Your task to perform on an android device: Open Youtube and go to "Your channel" Image 0: 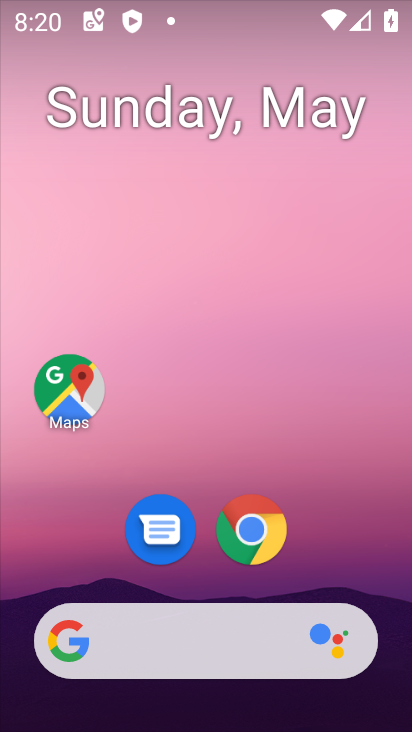
Step 0: drag from (366, 589) to (412, 660)
Your task to perform on an android device: Open Youtube and go to "Your channel" Image 1: 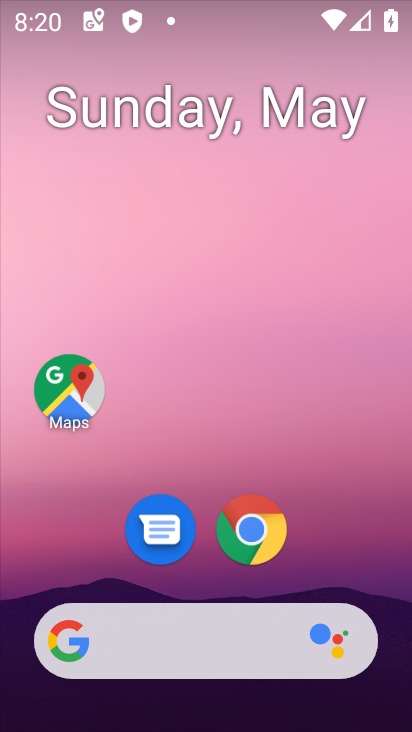
Step 1: drag from (405, 629) to (388, 35)
Your task to perform on an android device: Open Youtube and go to "Your channel" Image 2: 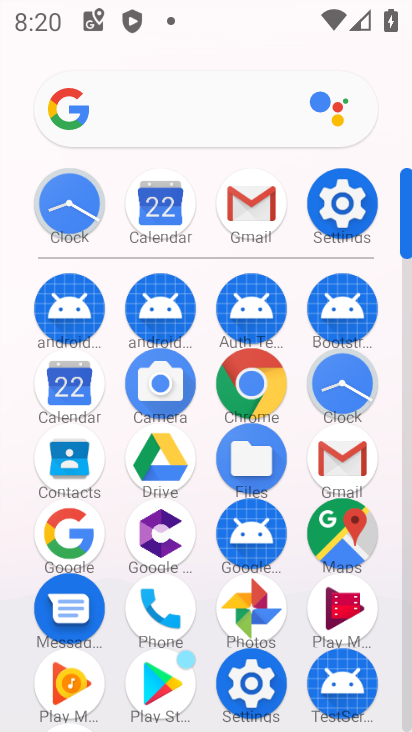
Step 2: drag from (410, 494) to (408, 460)
Your task to perform on an android device: Open Youtube and go to "Your channel" Image 3: 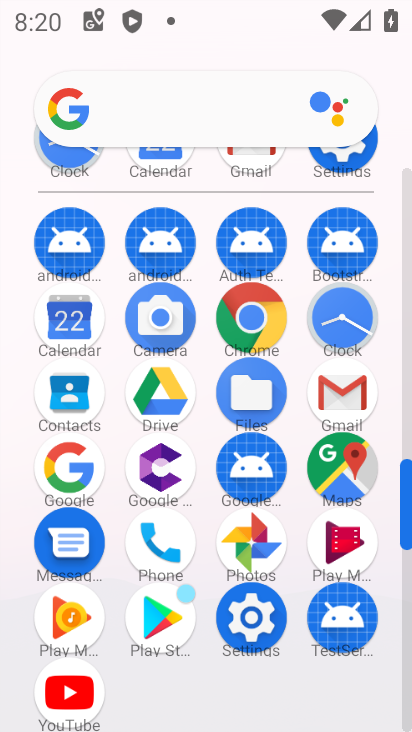
Step 3: click (65, 698)
Your task to perform on an android device: Open Youtube and go to "Your channel" Image 4: 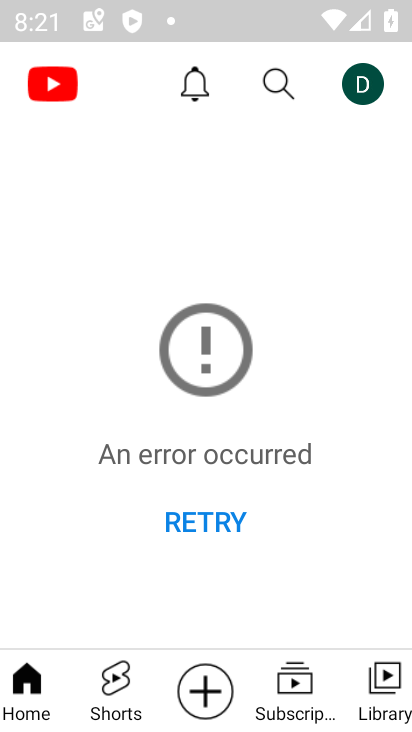
Step 4: click (378, 85)
Your task to perform on an android device: Open Youtube and go to "Your channel" Image 5: 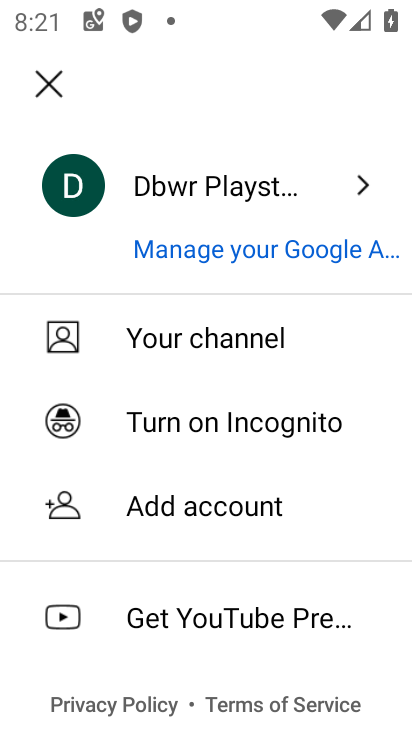
Step 5: click (204, 347)
Your task to perform on an android device: Open Youtube and go to "Your channel" Image 6: 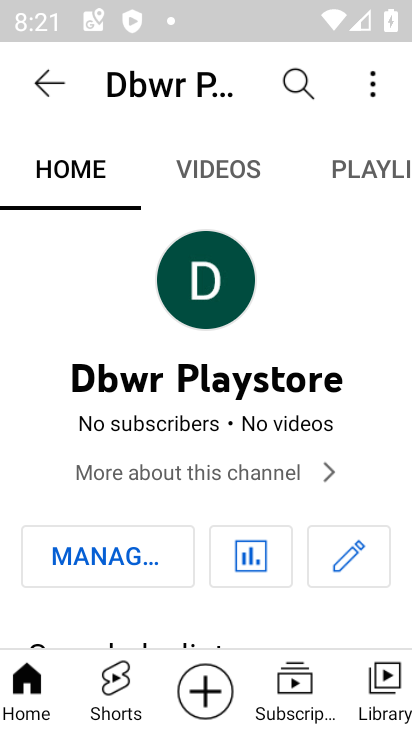
Step 6: task complete